Your task to perform on an android device: open app "Pluto TV - Live TV and Movies" (install if not already installed) and go to login screen Image 0: 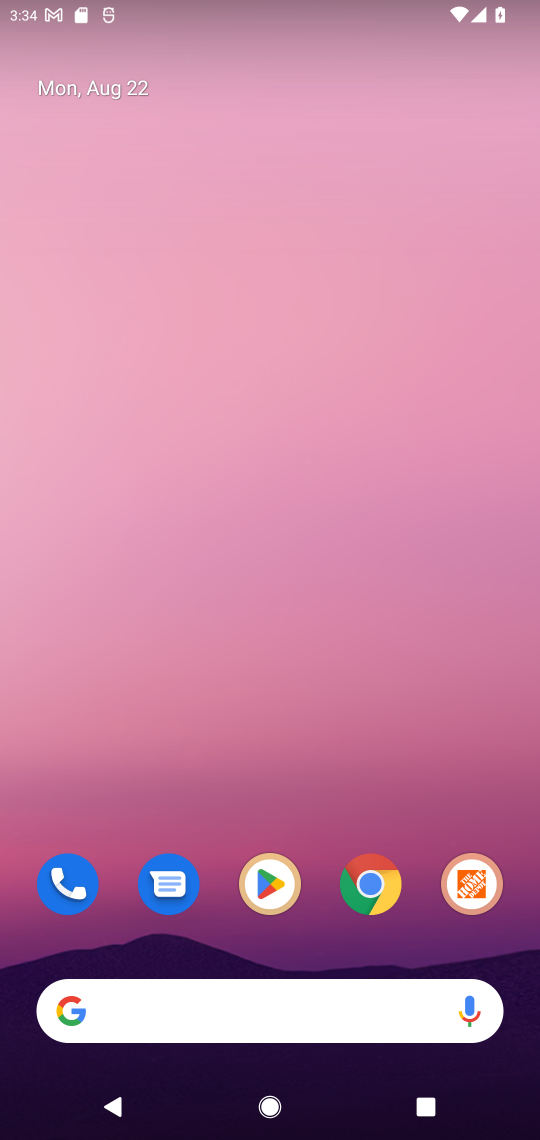
Step 0: click (280, 869)
Your task to perform on an android device: open app "Pluto TV - Live TV and Movies" (install if not already installed) and go to login screen Image 1: 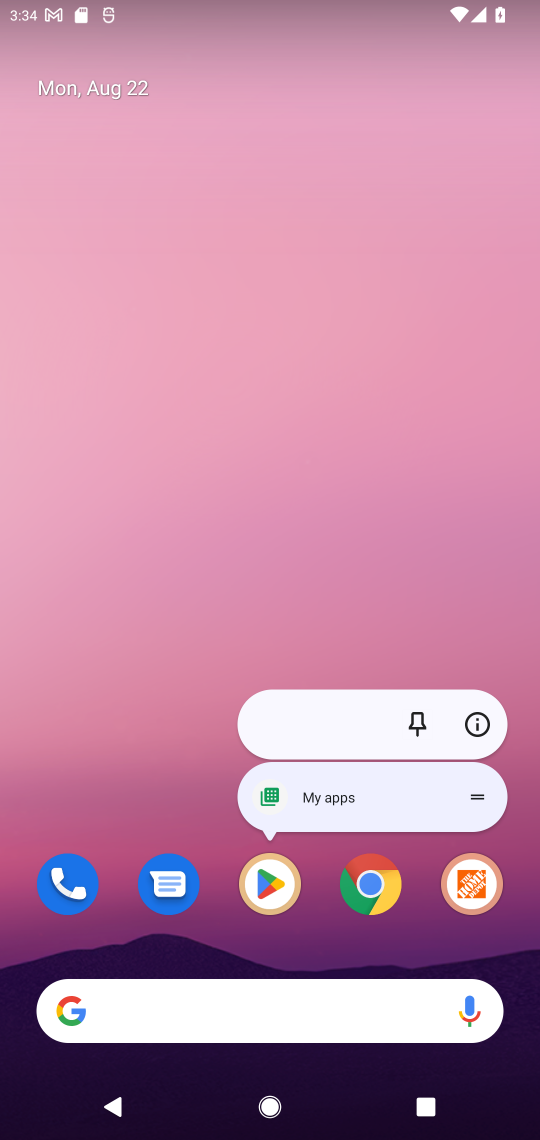
Step 1: click (280, 869)
Your task to perform on an android device: open app "Pluto TV - Live TV and Movies" (install if not already installed) and go to login screen Image 2: 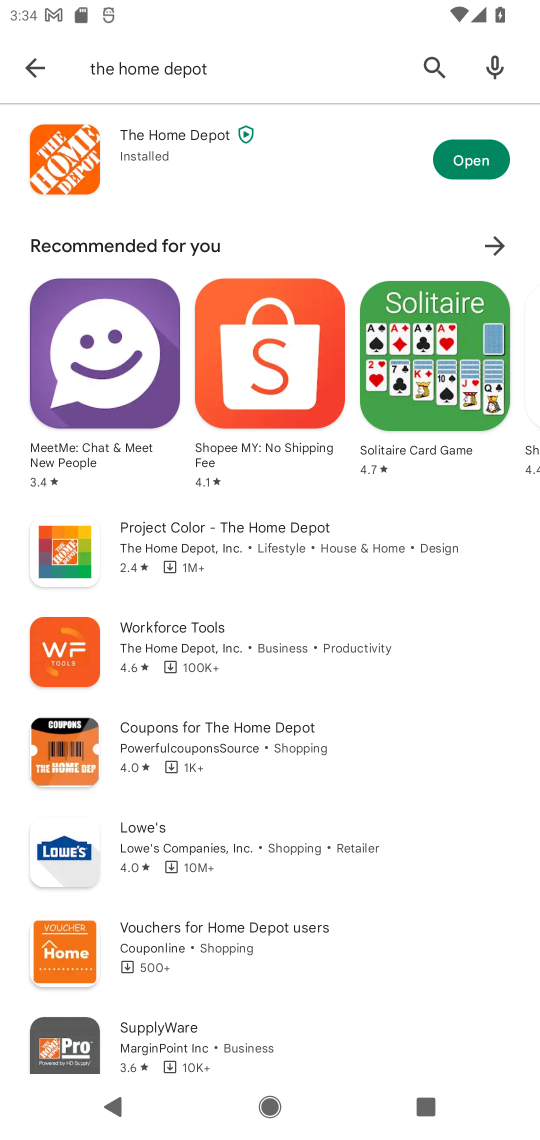
Step 2: click (255, 75)
Your task to perform on an android device: open app "Pluto TV - Live TV and Movies" (install if not already installed) and go to login screen Image 3: 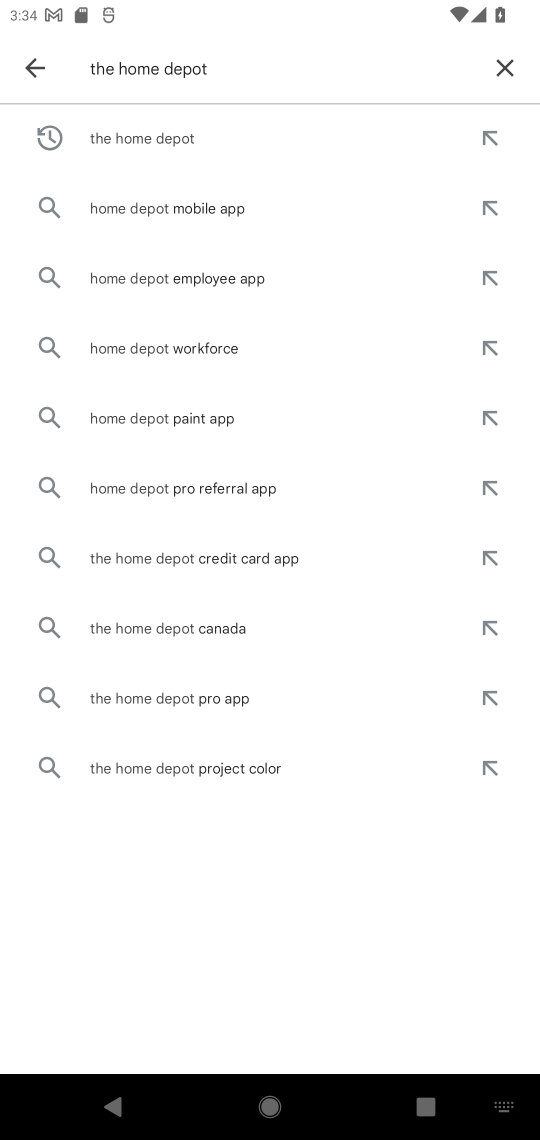
Step 3: click (511, 56)
Your task to perform on an android device: open app "Pluto TV - Live TV and Movies" (install if not already installed) and go to login screen Image 4: 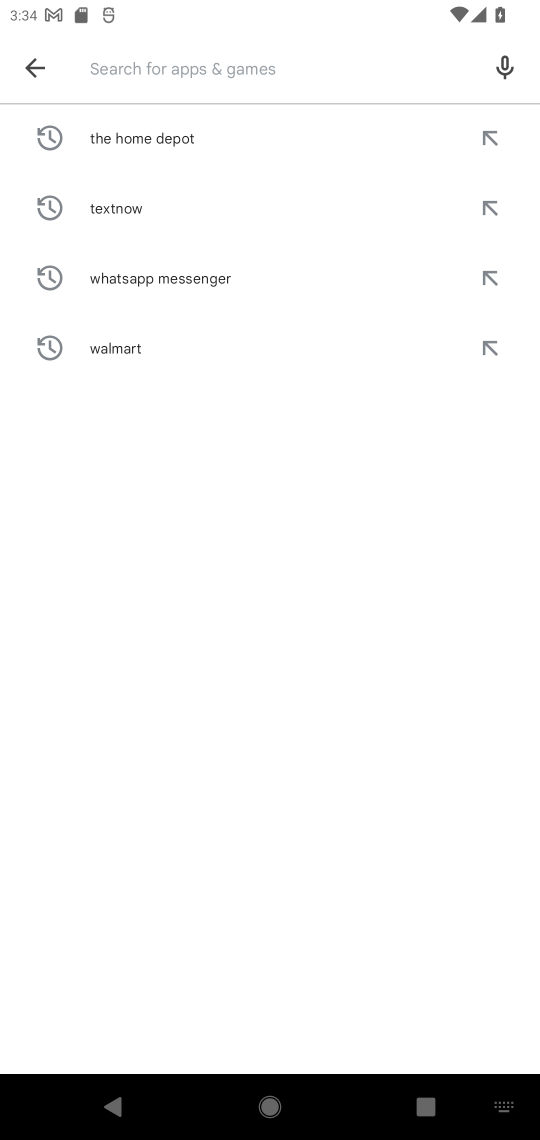
Step 4: type "PLuto Tv"
Your task to perform on an android device: open app "Pluto TV - Live TV and Movies" (install if not already installed) and go to login screen Image 5: 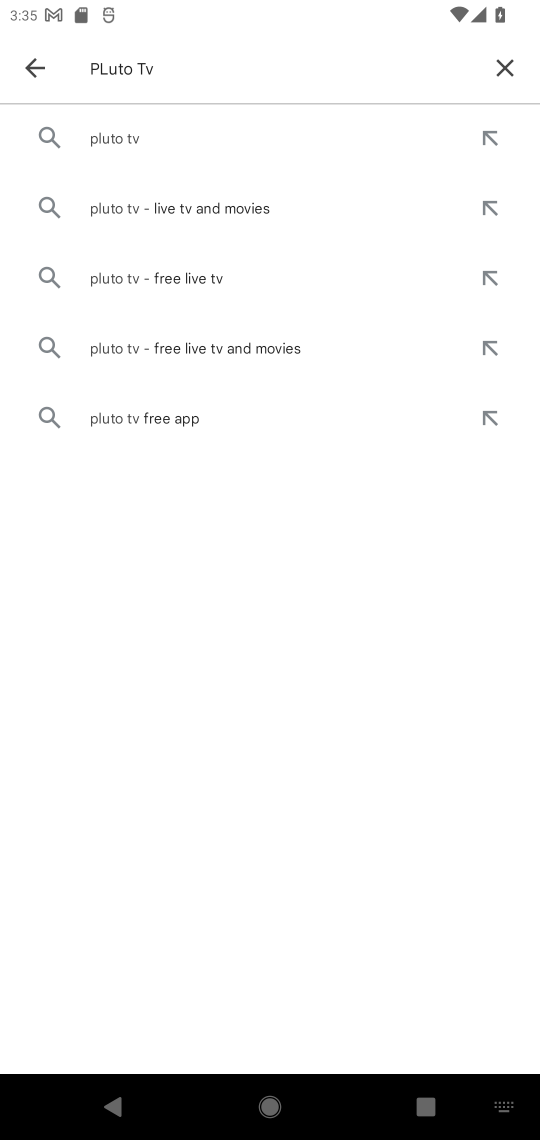
Step 5: click (184, 144)
Your task to perform on an android device: open app "Pluto TV - Live TV and Movies" (install if not already installed) and go to login screen Image 6: 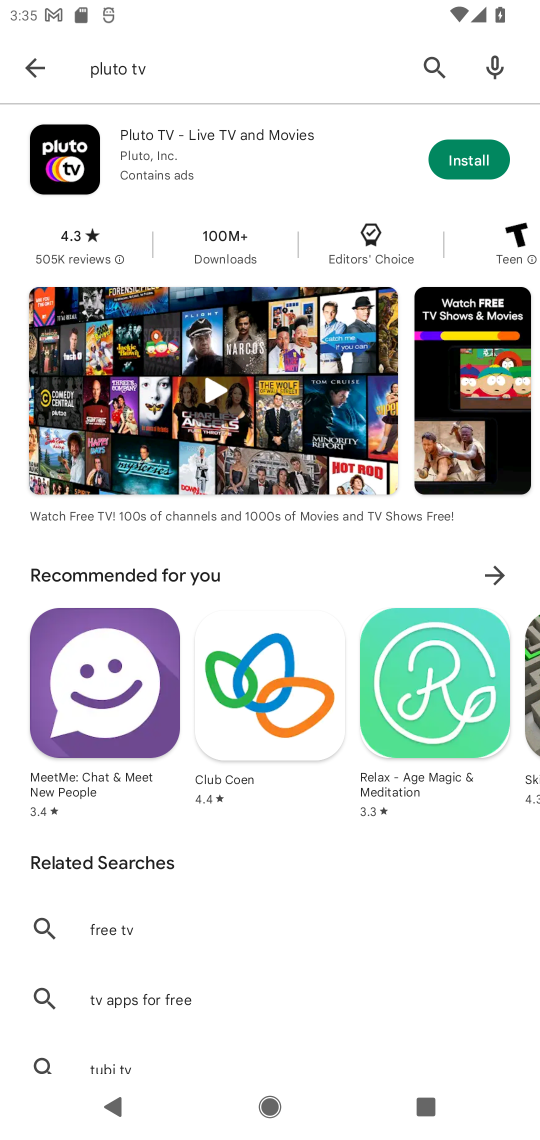
Step 6: click (487, 159)
Your task to perform on an android device: open app "Pluto TV - Live TV and Movies" (install if not already installed) and go to login screen Image 7: 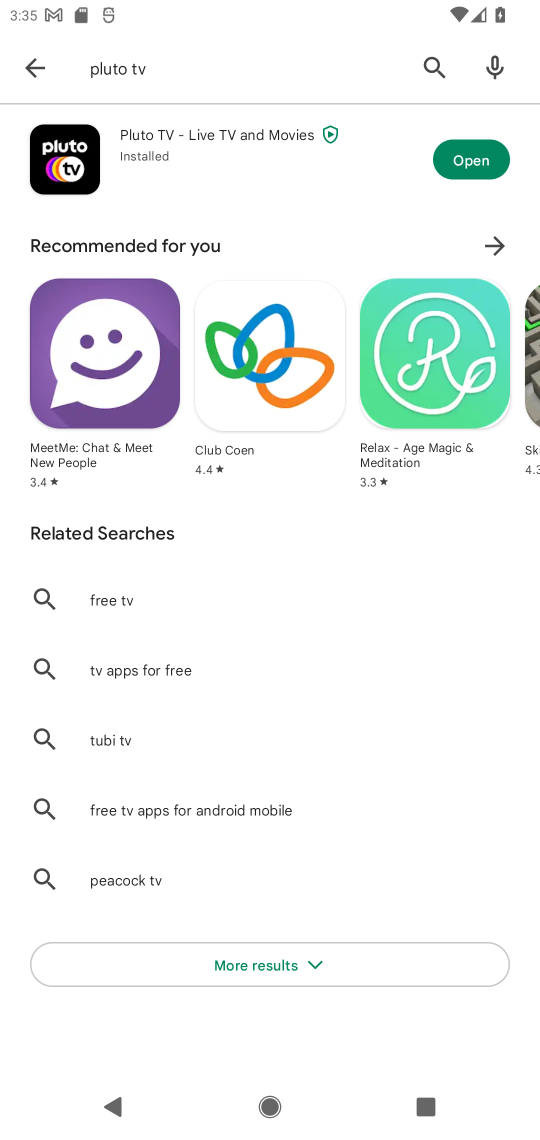
Step 7: click (487, 159)
Your task to perform on an android device: open app "Pluto TV - Live TV and Movies" (install if not already installed) and go to login screen Image 8: 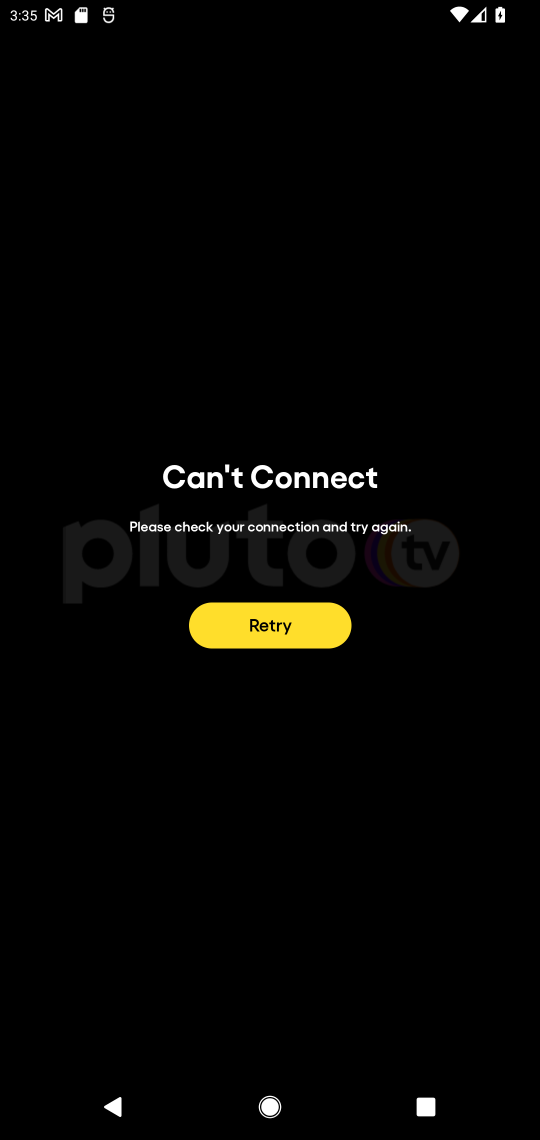
Step 8: click (269, 618)
Your task to perform on an android device: open app "Pluto TV - Live TV and Movies" (install if not already installed) and go to login screen Image 9: 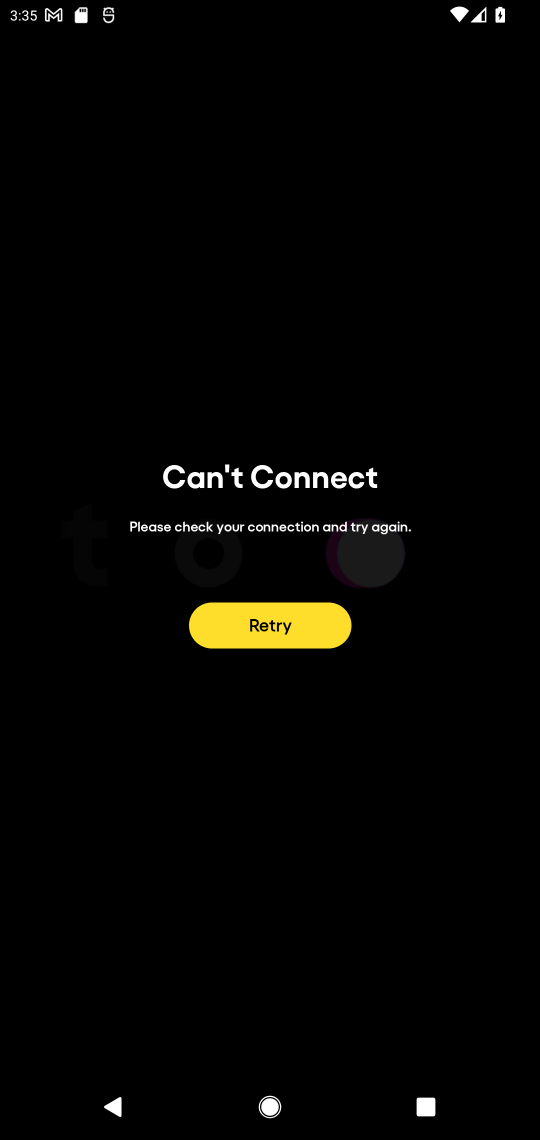
Step 9: click (311, 639)
Your task to perform on an android device: open app "Pluto TV - Live TV and Movies" (install if not already installed) and go to login screen Image 10: 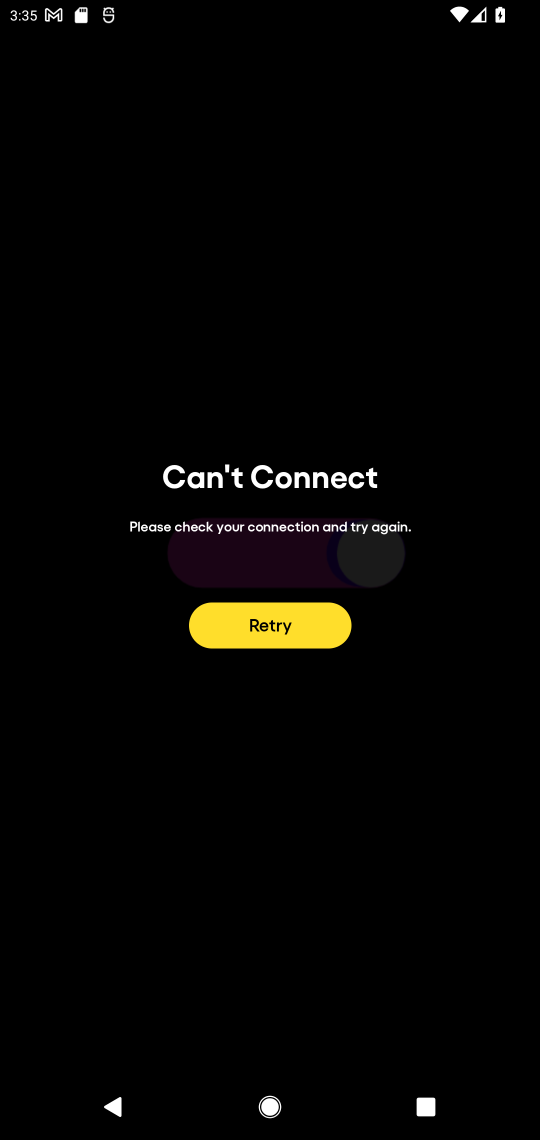
Step 10: task complete